Your task to perform on an android device: turn off javascript in the chrome app Image 0: 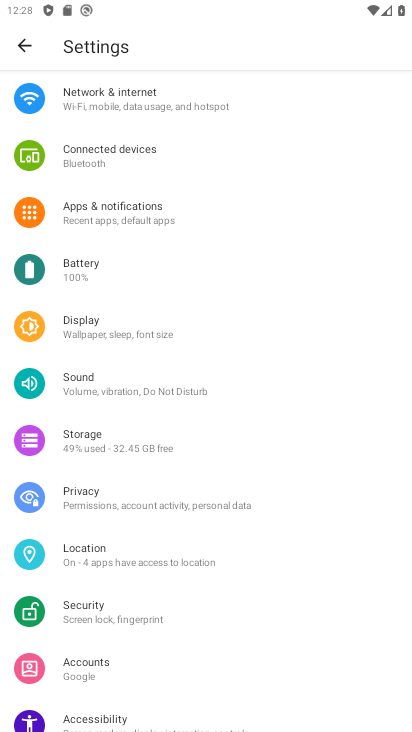
Step 0: press home button
Your task to perform on an android device: turn off javascript in the chrome app Image 1: 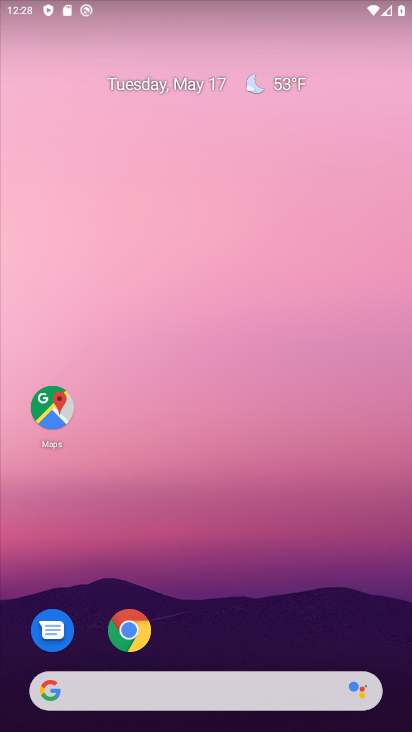
Step 1: drag from (219, 666) to (200, 117)
Your task to perform on an android device: turn off javascript in the chrome app Image 2: 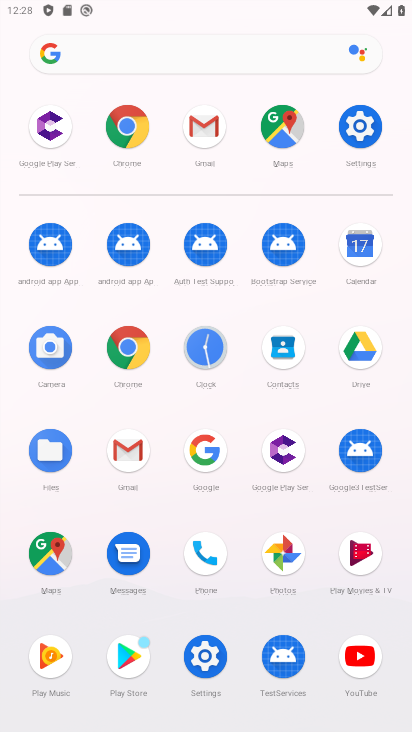
Step 2: click (178, 132)
Your task to perform on an android device: turn off javascript in the chrome app Image 3: 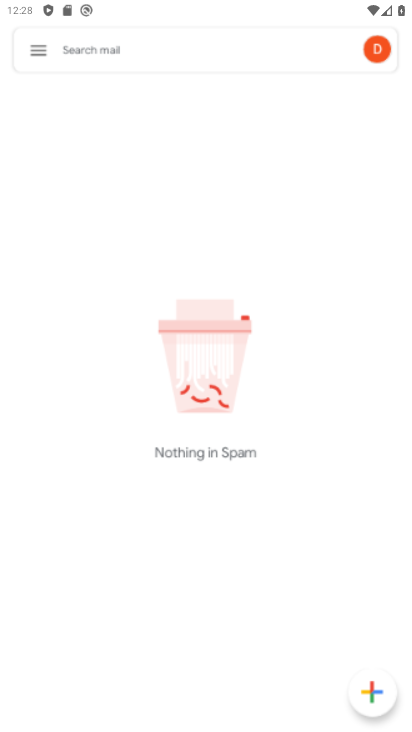
Step 3: click (178, 132)
Your task to perform on an android device: turn off javascript in the chrome app Image 4: 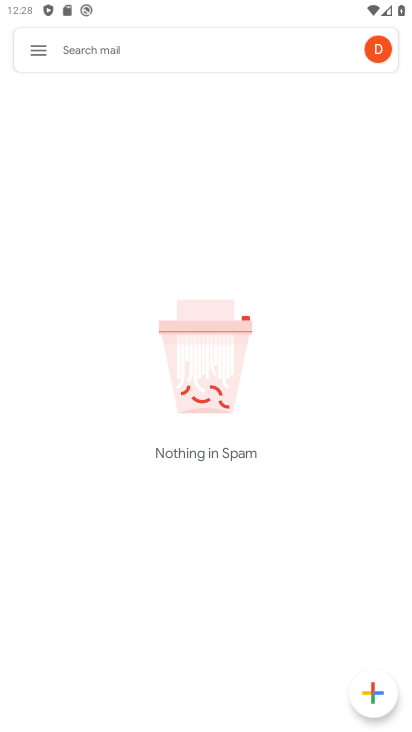
Step 4: click (178, 132)
Your task to perform on an android device: turn off javascript in the chrome app Image 5: 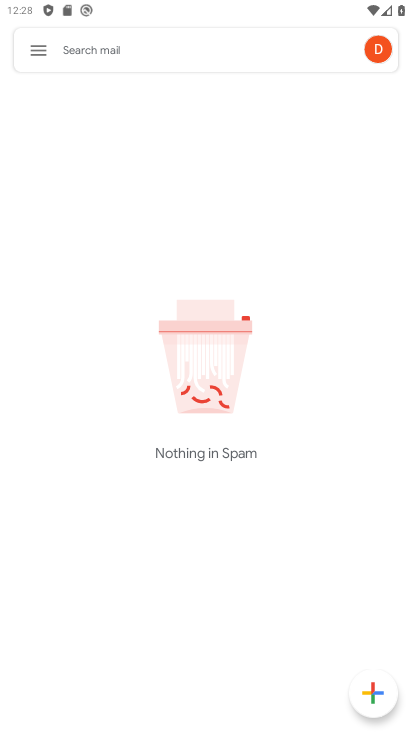
Step 5: click (178, 132)
Your task to perform on an android device: turn off javascript in the chrome app Image 6: 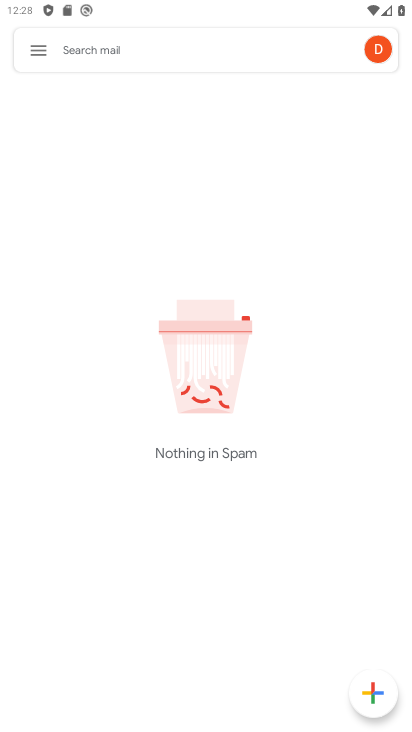
Step 6: click (178, 132)
Your task to perform on an android device: turn off javascript in the chrome app Image 7: 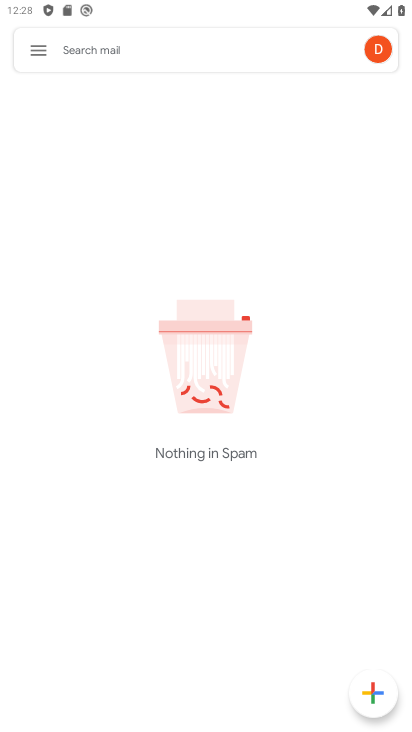
Step 7: press home button
Your task to perform on an android device: turn off javascript in the chrome app Image 8: 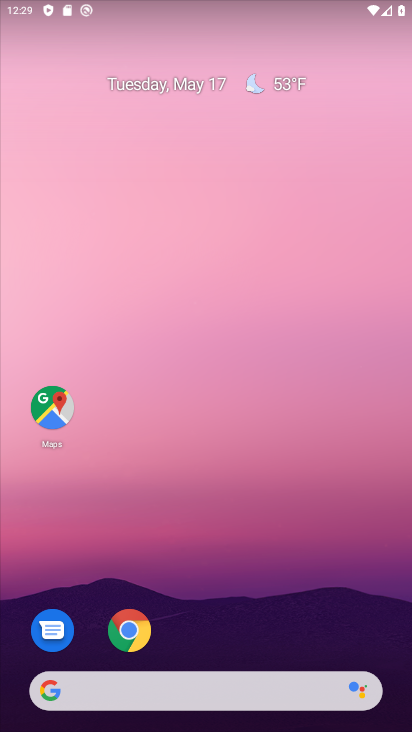
Step 8: press back button
Your task to perform on an android device: turn off javascript in the chrome app Image 9: 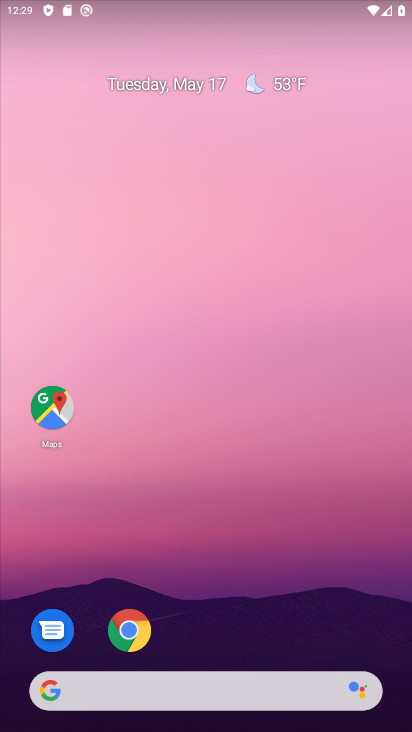
Step 9: press back button
Your task to perform on an android device: turn off javascript in the chrome app Image 10: 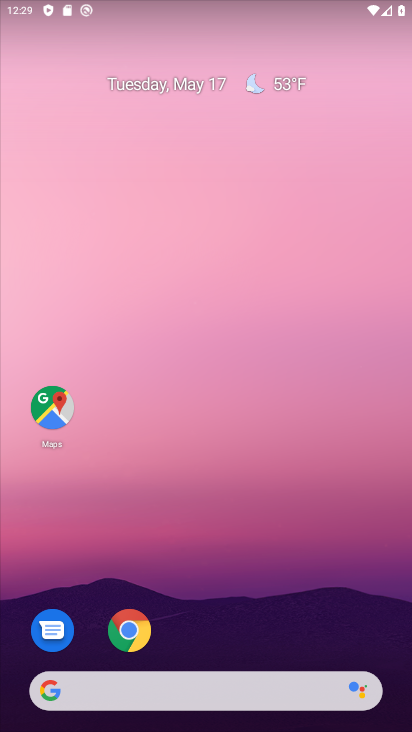
Step 10: press back button
Your task to perform on an android device: turn off javascript in the chrome app Image 11: 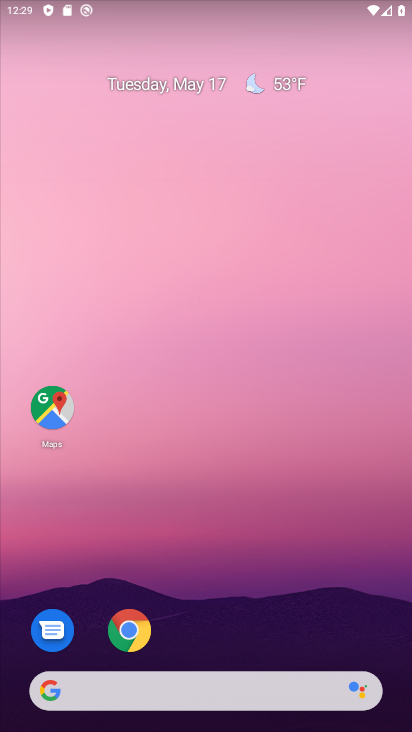
Step 11: click (124, 625)
Your task to perform on an android device: turn off javascript in the chrome app Image 12: 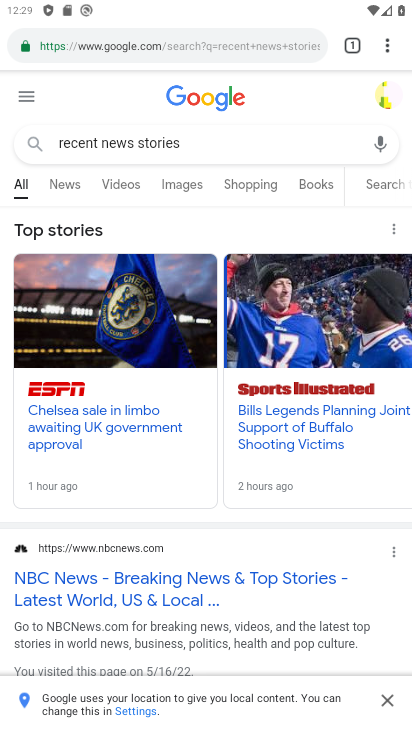
Step 12: click (393, 46)
Your task to perform on an android device: turn off javascript in the chrome app Image 13: 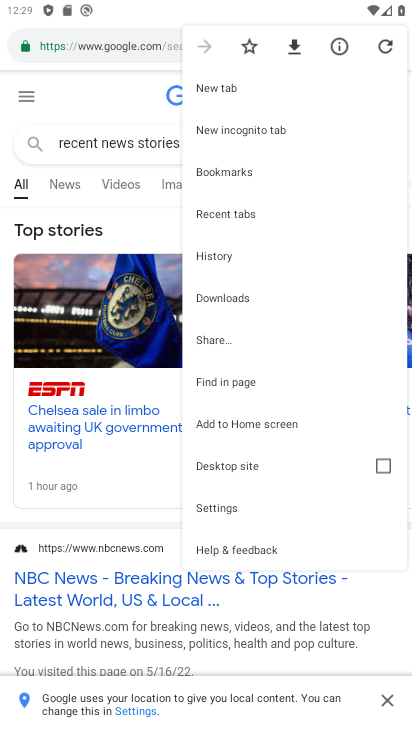
Step 13: click (234, 506)
Your task to perform on an android device: turn off javascript in the chrome app Image 14: 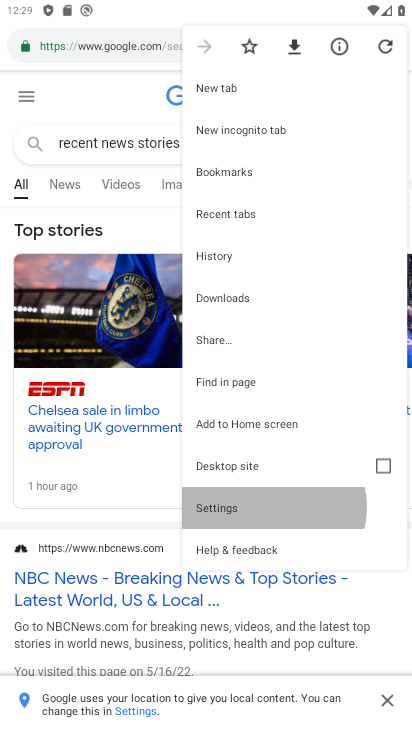
Step 14: click (234, 506)
Your task to perform on an android device: turn off javascript in the chrome app Image 15: 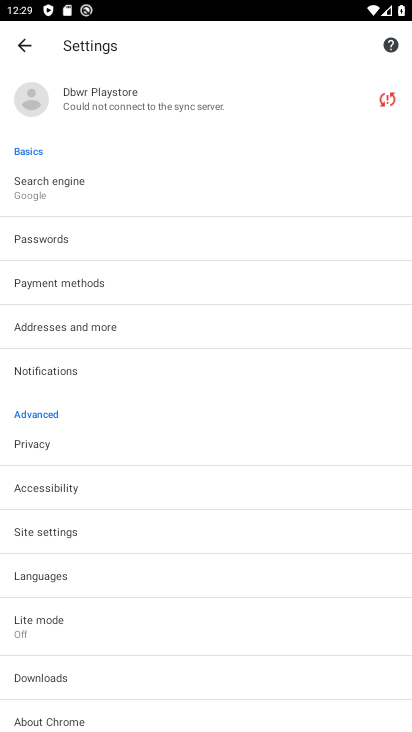
Step 15: click (37, 545)
Your task to perform on an android device: turn off javascript in the chrome app Image 16: 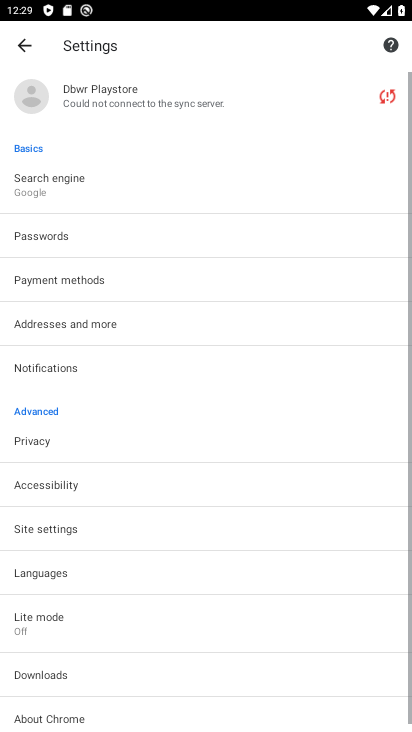
Step 16: click (38, 535)
Your task to perform on an android device: turn off javascript in the chrome app Image 17: 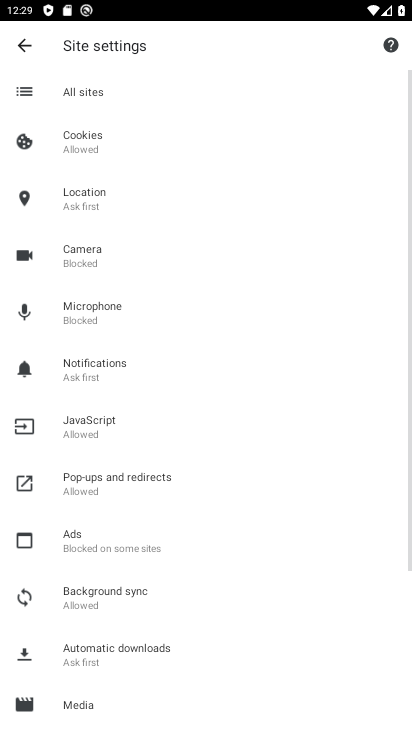
Step 17: click (104, 425)
Your task to perform on an android device: turn off javascript in the chrome app Image 18: 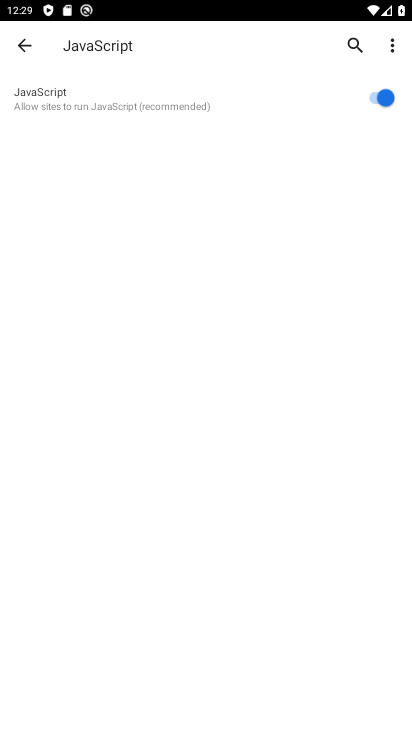
Step 18: click (382, 78)
Your task to perform on an android device: turn off javascript in the chrome app Image 19: 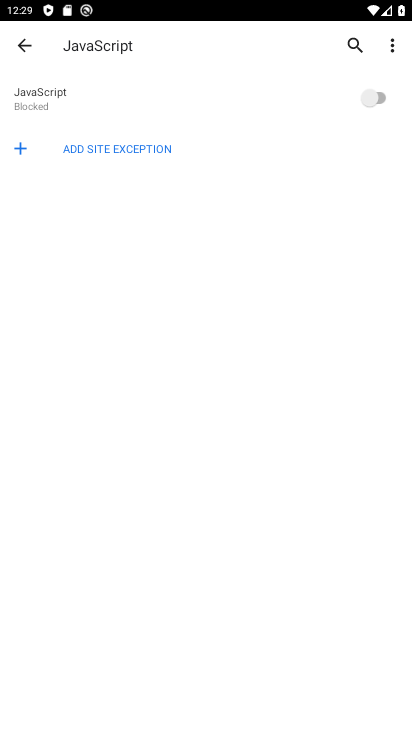
Step 19: task complete